Your task to perform on an android device: Do I have any events tomorrow? Image 0: 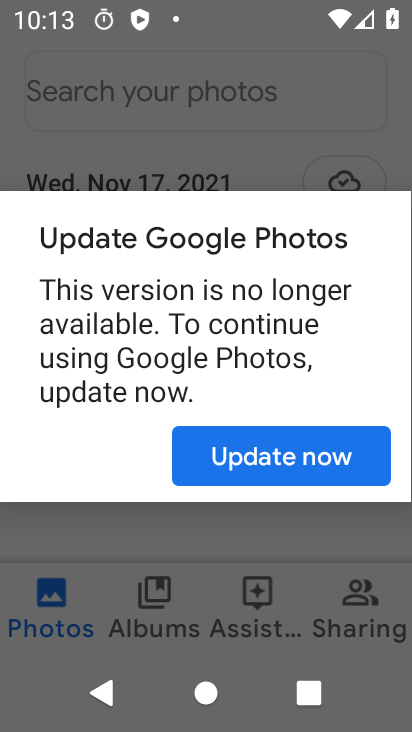
Step 0: press home button
Your task to perform on an android device: Do I have any events tomorrow? Image 1: 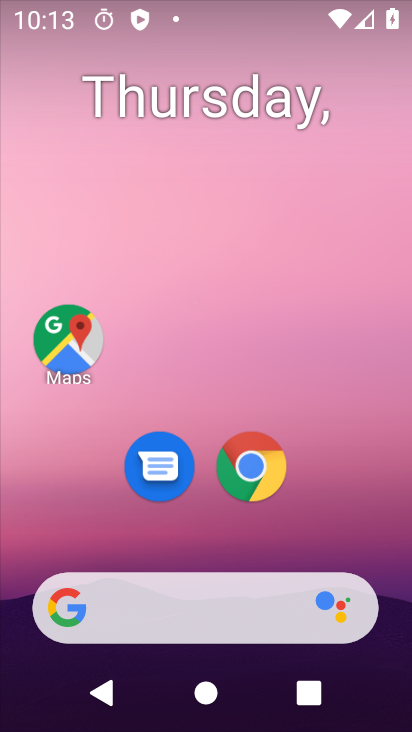
Step 1: drag from (160, 622) to (302, 112)
Your task to perform on an android device: Do I have any events tomorrow? Image 2: 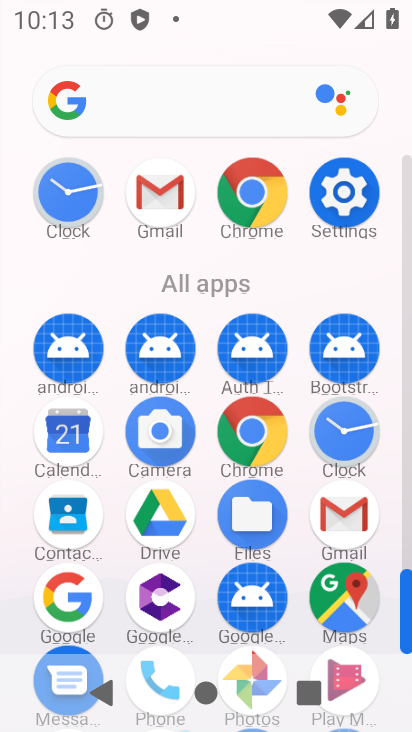
Step 2: click (72, 441)
Your task to perform on an android device: Do I have any events tomorrow? Image 3: 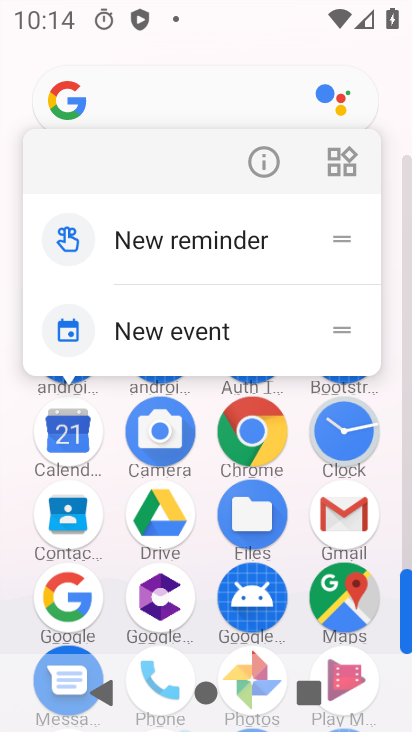
Step 3: click (68, 448)
Your task to perform on an android device: Do I have any events tomorrow? Image 4: 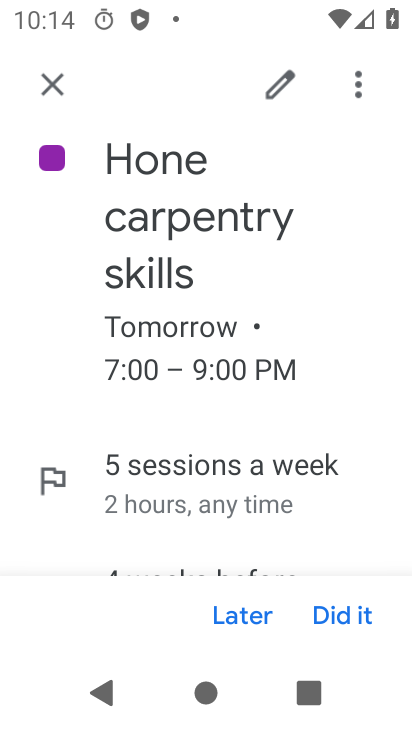
Step 4: click (47, 83)
Your task to perform on an android device: Do I have any events tomorrow? Image 5: 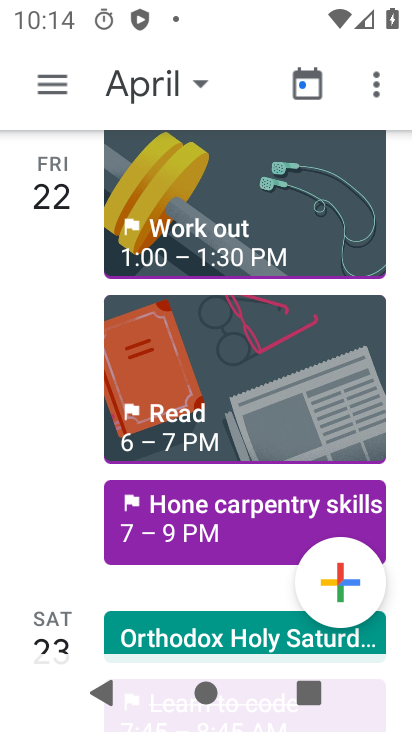
Step 5: click (126, 87)
Your task to perform on an android device: Do I have any events tomorrow? Image 6: 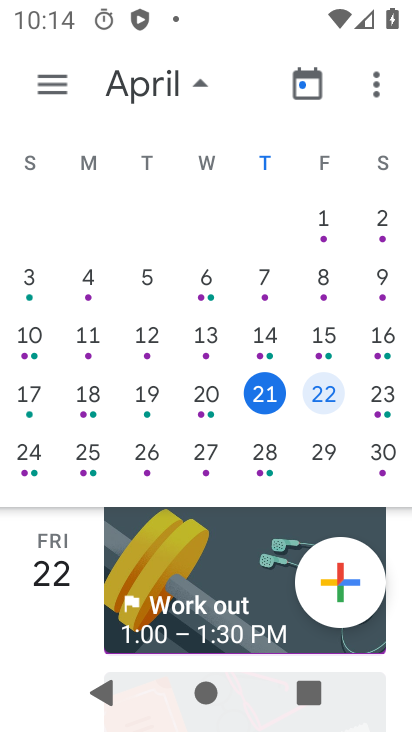
Step 6: click (323, 390)
Your task to perform on an android device: Do I have any events tomorrow? Image 7: 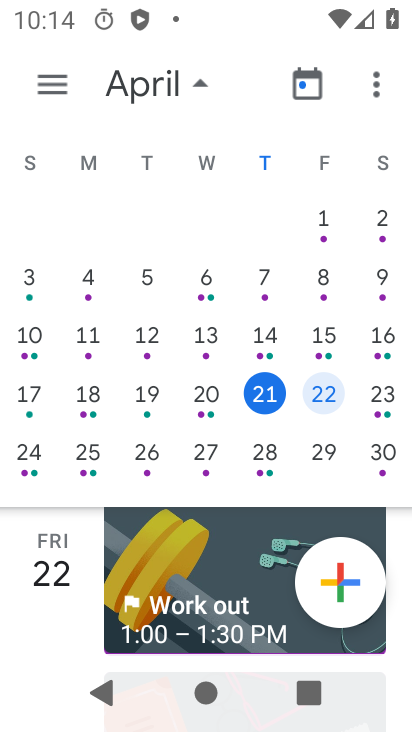
Step 7: click (55, 78)
Your task to perform on an android device: Do I have any events tomorrow? Image 8: 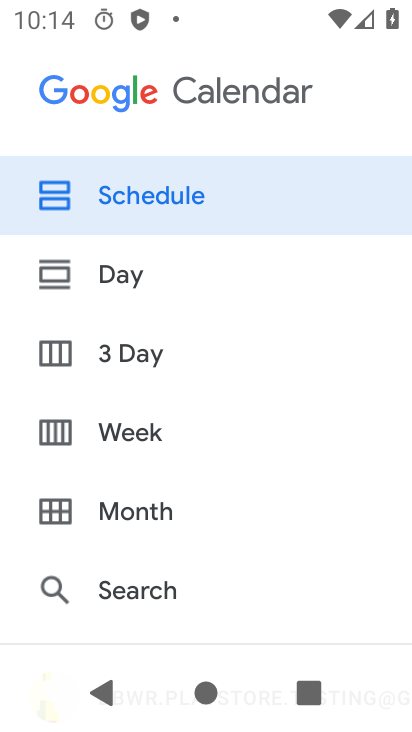
Step 8: click (116, 202)
Your task to perform on an android device: Do I have any events tomorrow? Image 9: 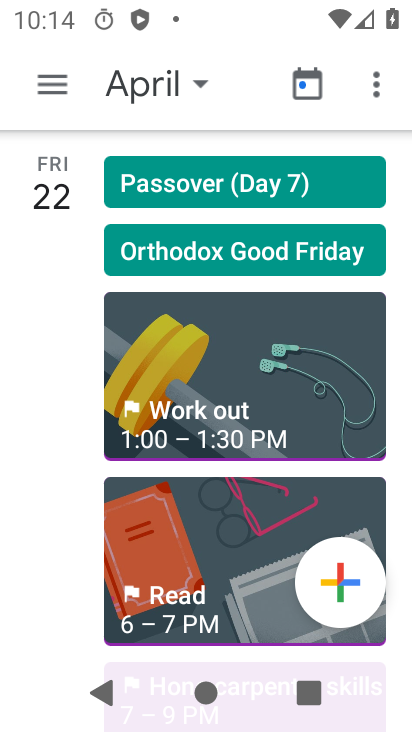
Step 9: drag from (238, 525) to (327, 334)
Your task to perform on an android device: Do I have any events tomorrow? Image 10: 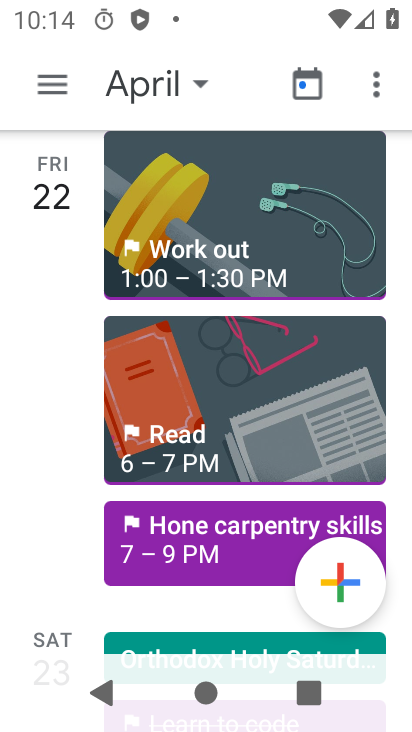
Step 10: click (268, 529)
Your task to perform on an android device: Do I have any events tomorrow? Image 11: 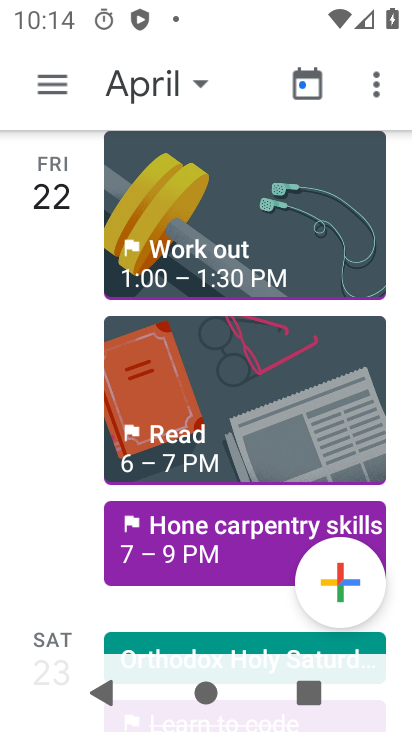
Step 11: click (245, 523)
Your task to perform on an android device: Do I have any events tomorrow? Image 12: 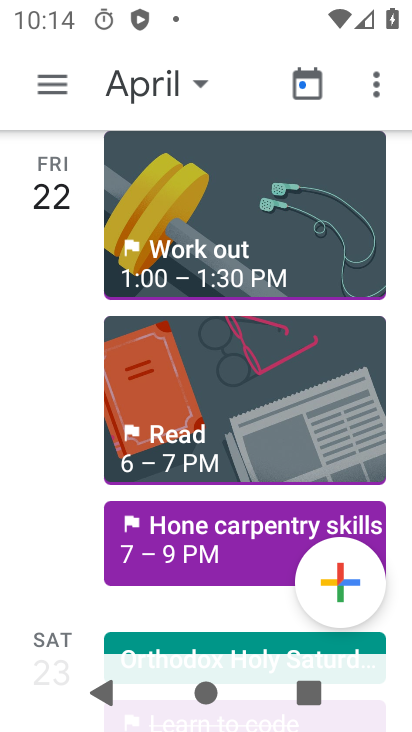
Step 12: click (217, 552)
Your task to perform on an android device: Do I have any events tomorrow? Image 13: 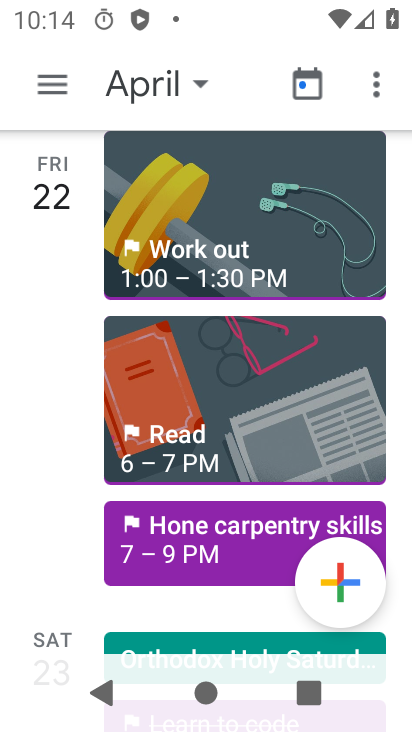
Step 13: drag from (229, 469) to (339, 232)
Your task to perform on an android device: Do I have any events tomorrow? Image 14: 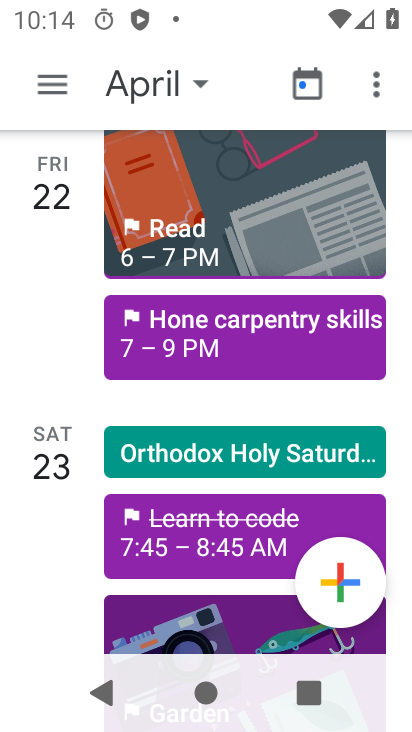
Step 14: click (278, 315)
Your task to perform on an android device: Do I have any events tomorrow? Image 15: 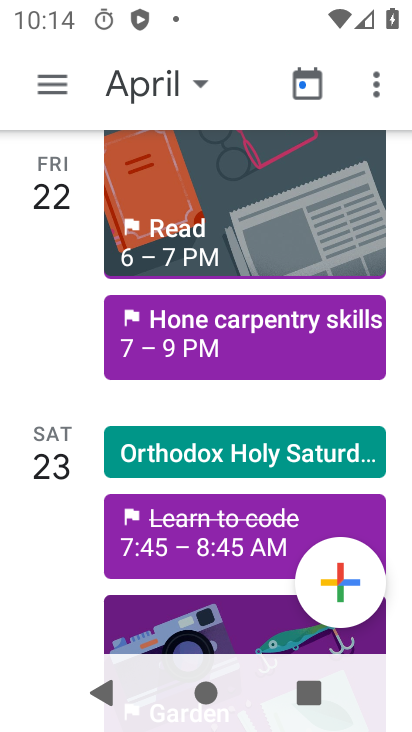
Step 15: click (249, 312)
Your task to perform on an android device: Do I have any events tomorrow? Image 16: 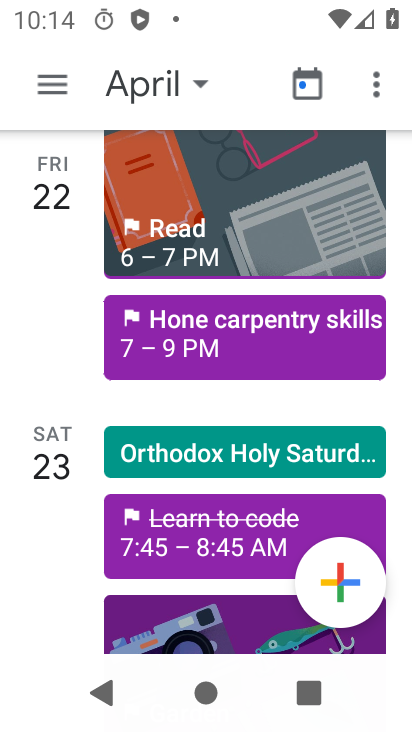
Step 16: click (190, 343)
Your task to perform on an android device: Do I have any events tomorrow? Image 17: 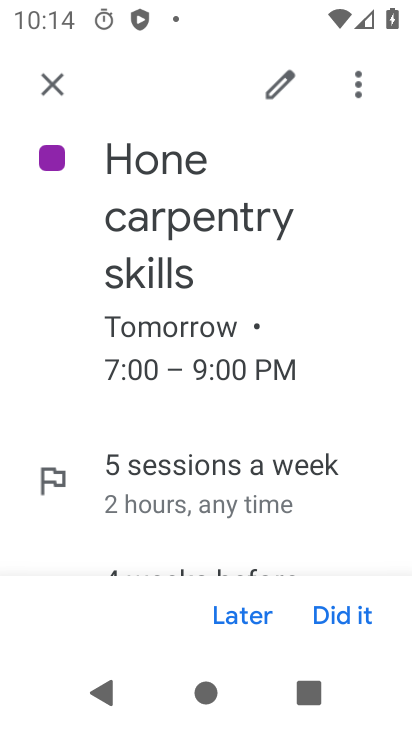
Step 17: task complete